Your task to perform on an android device: see tabs open on other devices in the chrome app Image 0: 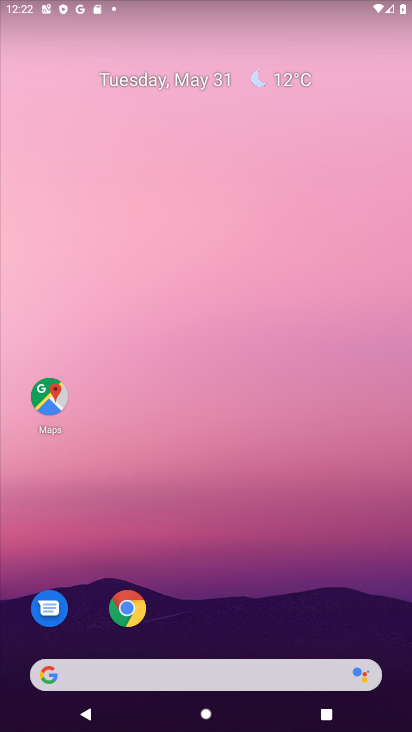
Step 0: click (128, 610)
Your task to perform on an android device: see tabs open on other devices in the chrome app Image 1: 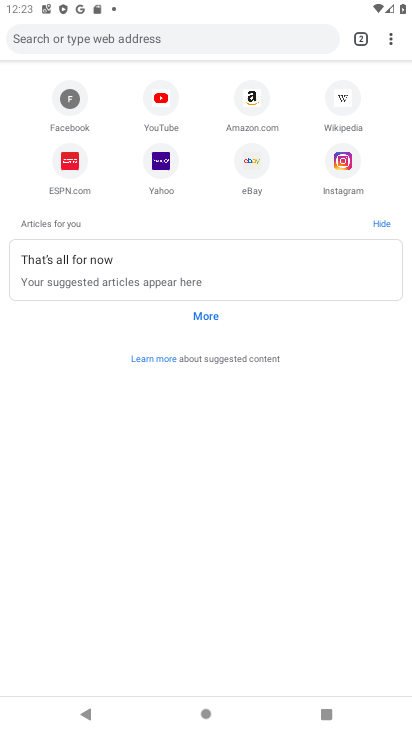
Step 1: click (362, 38)
Your task to perform on an android device: see tabs open on other devices in the chrome app Image 2: 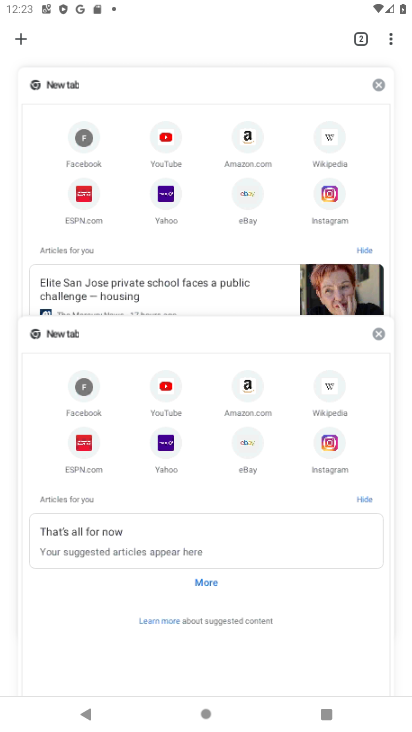
Step 2: task complete